Your task to perform on an android device: Go to Google Image 0: 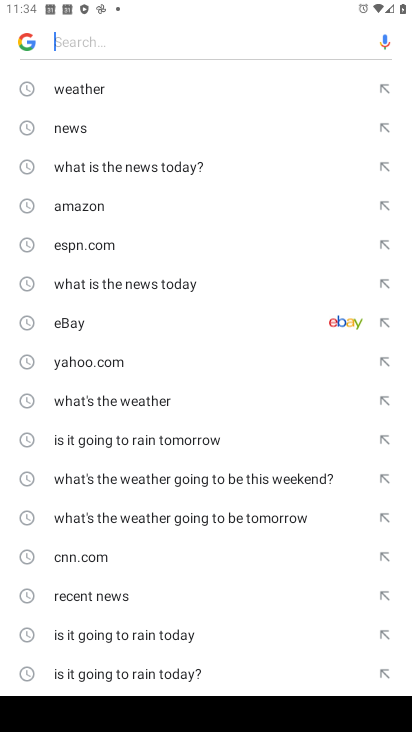
Step 0: drag from (206, 594) to (307, 268)
Your task to perform on an android device: Go to Google Image 1: 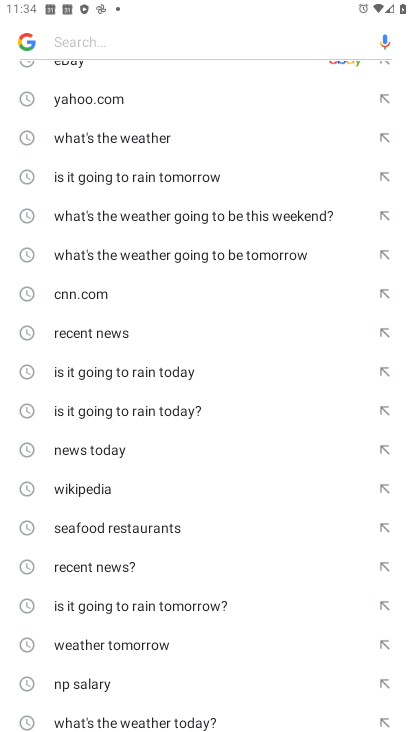
Step 1: drag from (210, 614) to (174, 294)
Your task to perform on an android device: Go to Google Image 2: 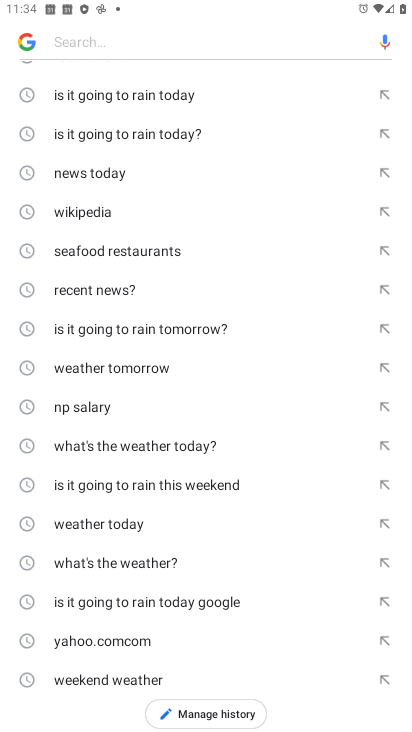
Step 2: drag from (197, 237) to (236, 727)
Your task to perform on an android device: Go to Google Image 3: 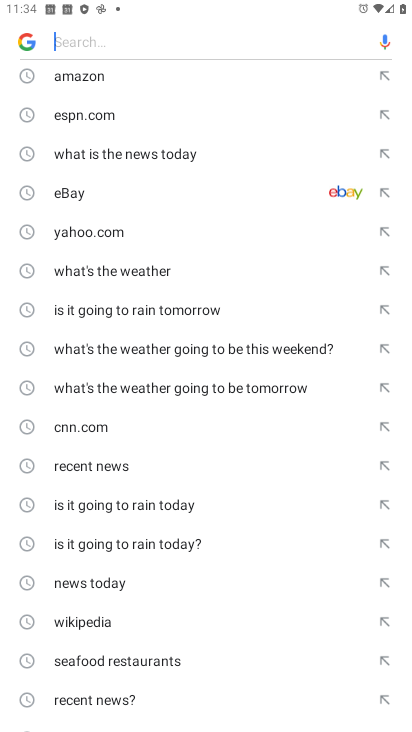
Step 3: press home button
Your task to perform on an android device: Go to Google Image 4: 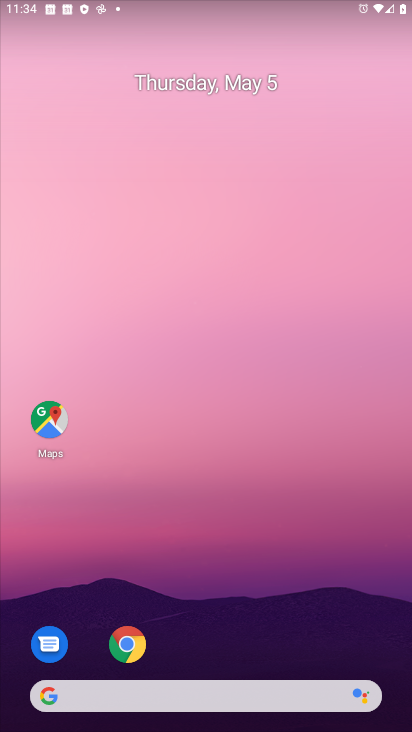
Step 4: drag from (238, 615) to (272, 301)
Your task to perform on an android device: Go to Google Image 5: 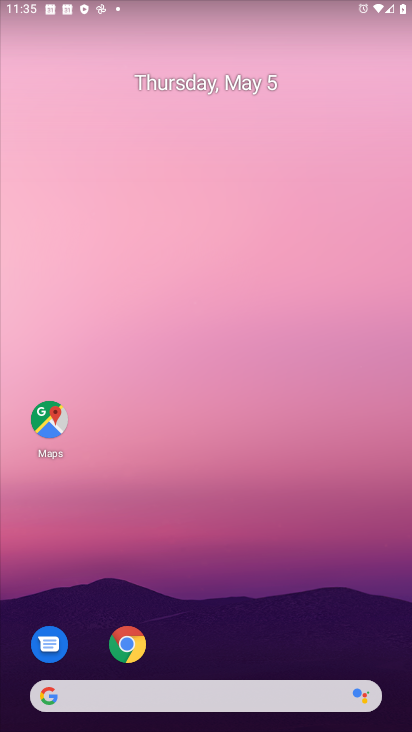
Step 5: drag from (219, 581) to (261, 78)
Your task to perform on an android device: Go to Google Image 6: 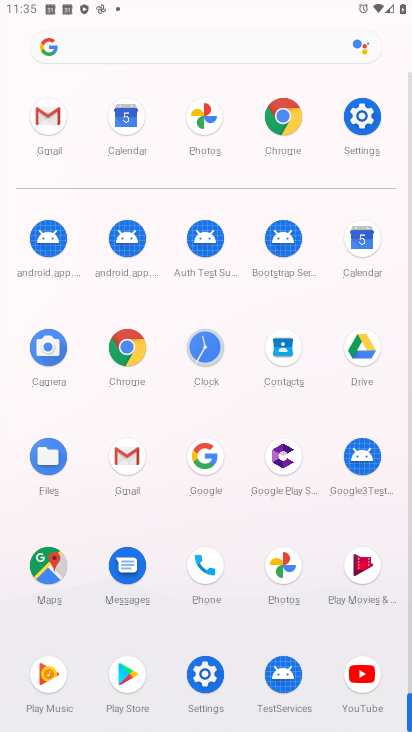
Step 6: click (205, 456)
Your task to perform on an android device: Go to Google Image 7: 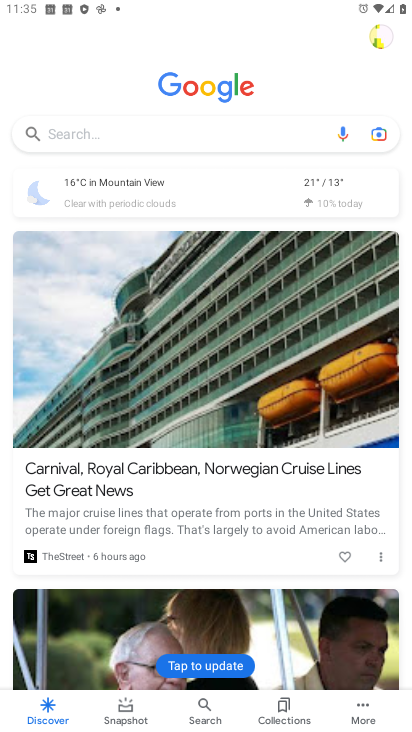
Step 7: task complete